Your task to perform on an android device: Search for "corsair k70" on newegg, select the first entry, add it to the cart, then select checkout. Image 0: 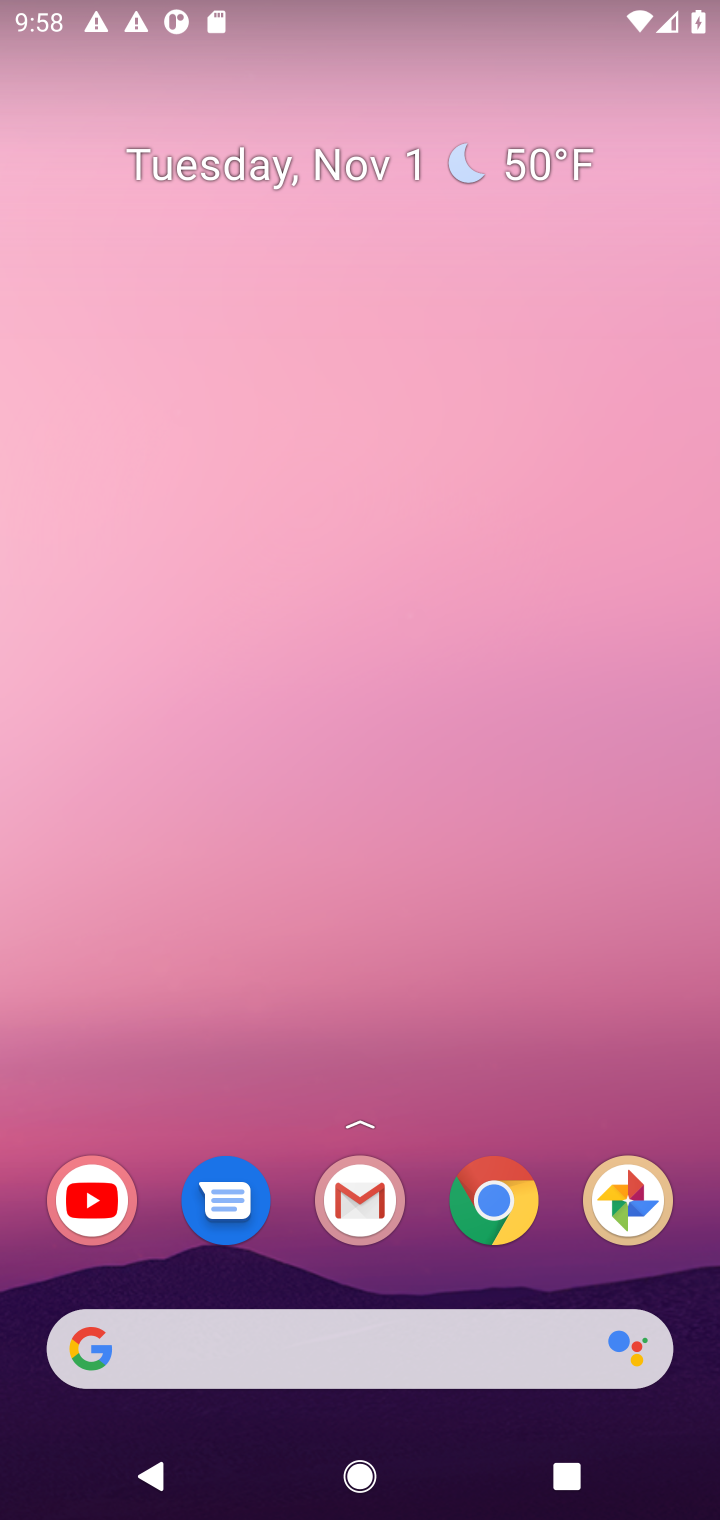
Step 0: click (271, 1322)
Your task to perform on an android device: Search for "corsair k70" on newegg, select the first entry, add it to the cart, then select checkout. Image 1: 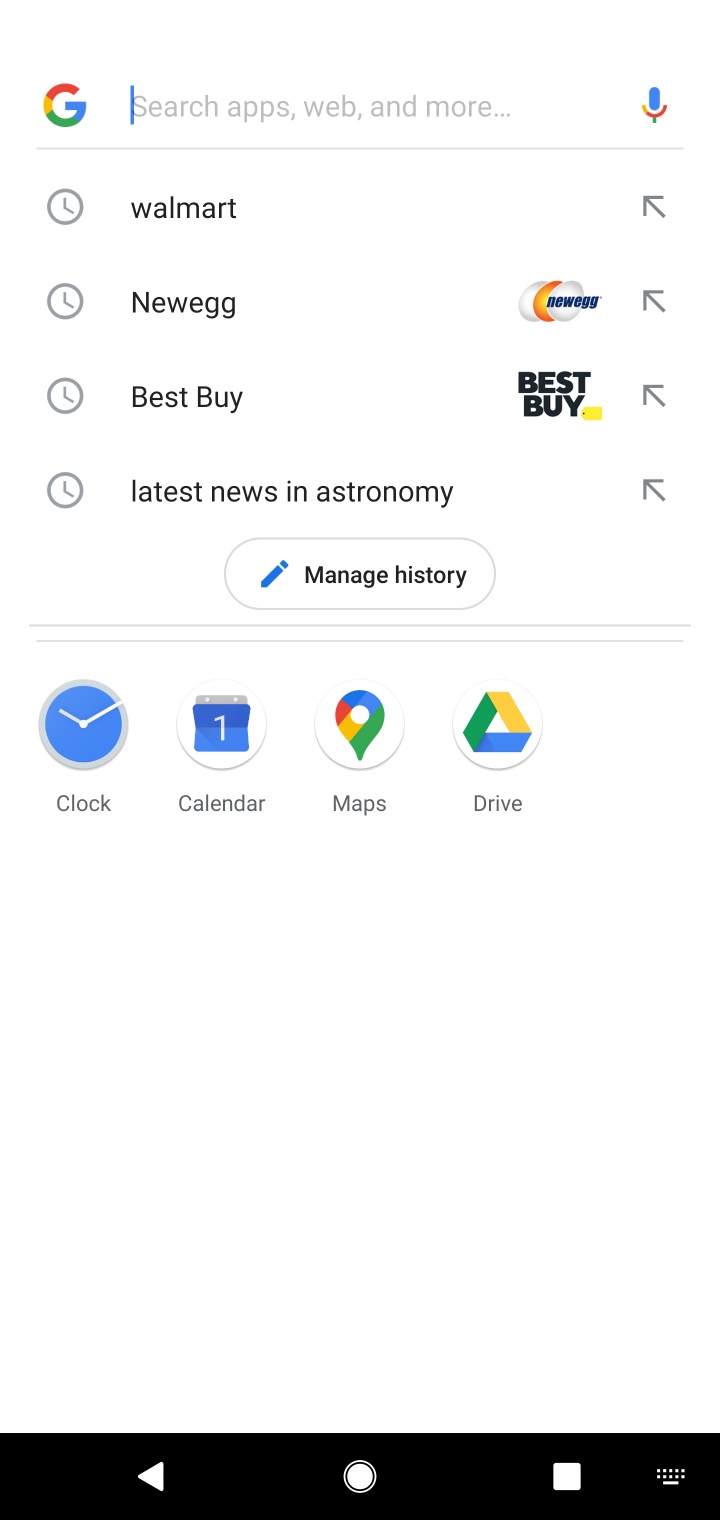
Step 1: type "newegg"
Your task to perform on an android device: Search for "corsair k70" on newegg, select the first entry, add it to the cart, then select checkout. Image 2: 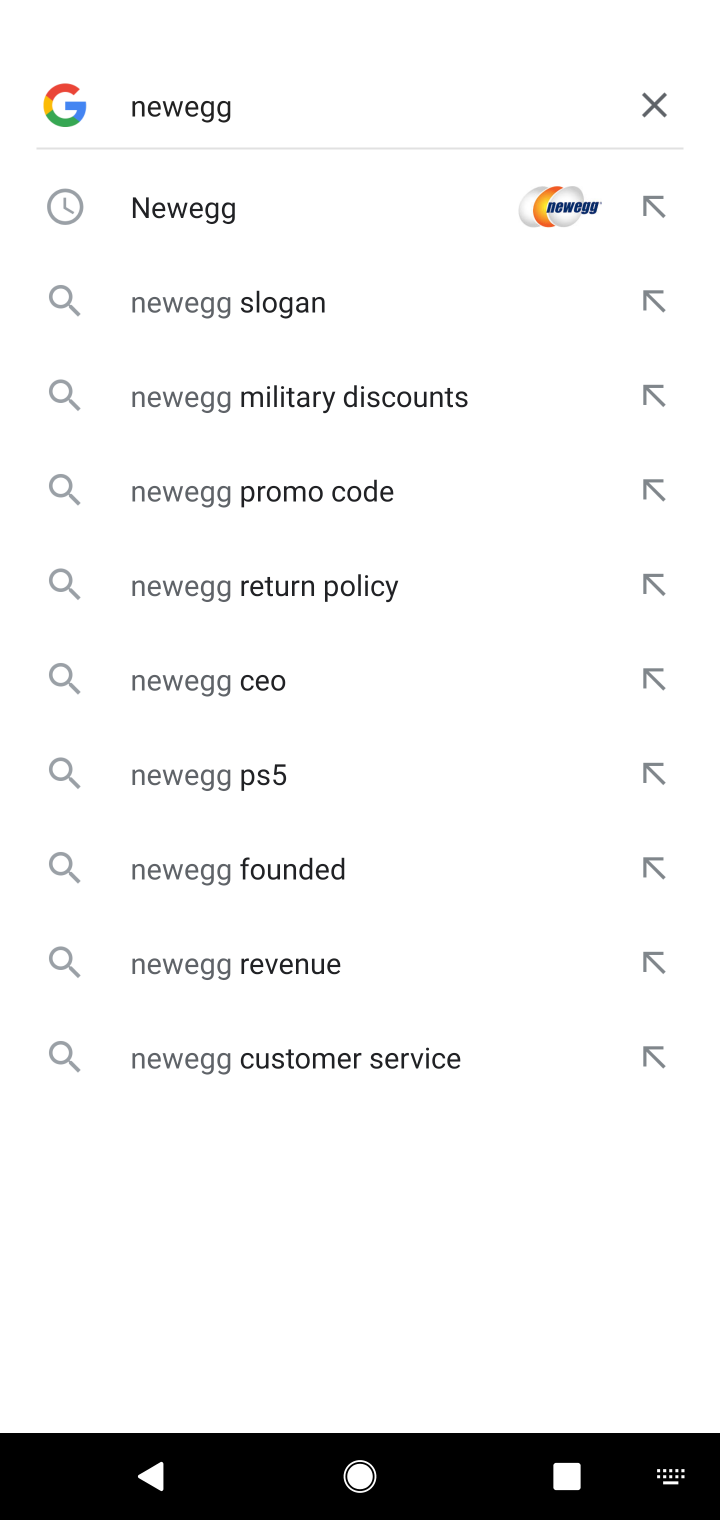
Step 2: click (209, 214)
Your task to perform on an android device: Search for "corsair k70" on newegg, select the first entry, add it to the cart, then select checkout. Image 3: 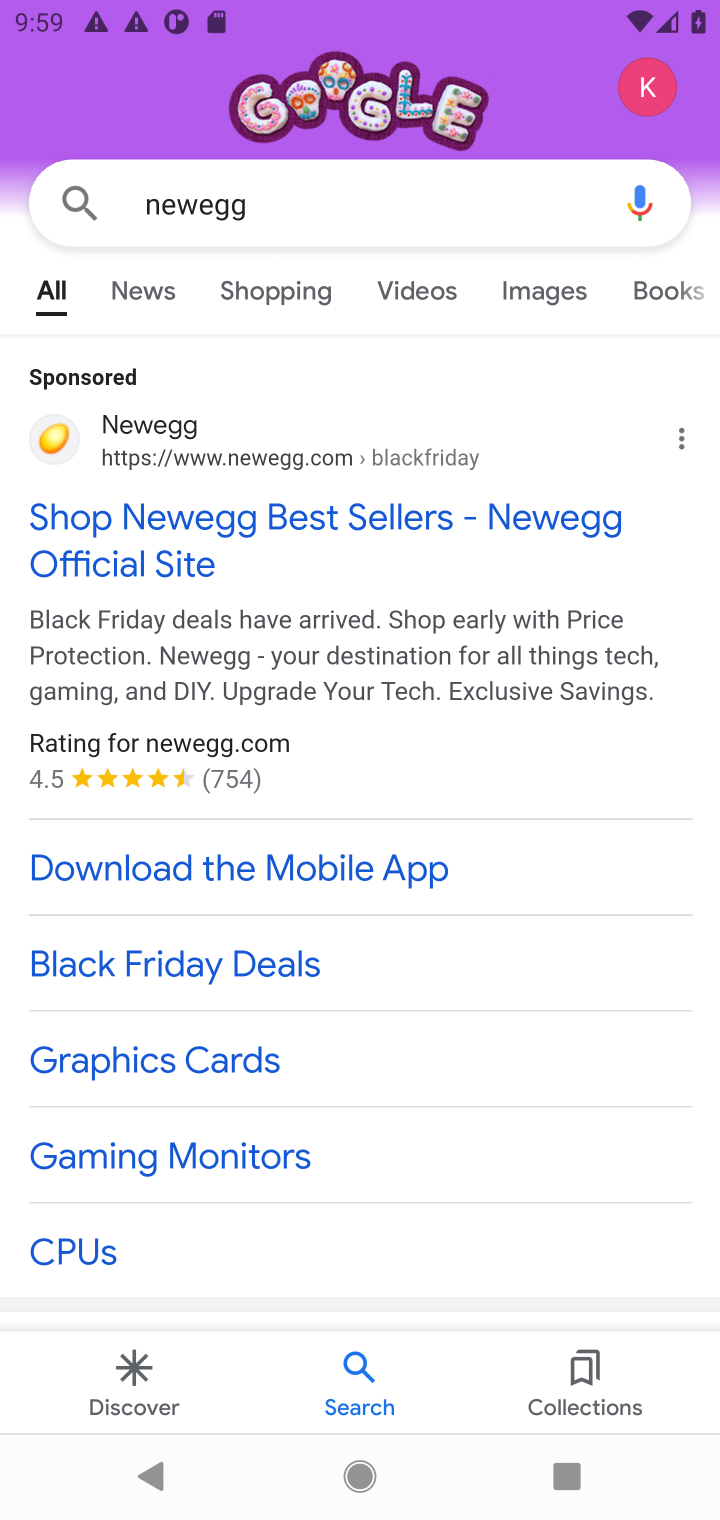
Step 3: click (191, 508)
Your task to perform on an android device: Search for "corsair k70" on newegg, select the first entry, add it to the cart, then select checkout. Image 4: 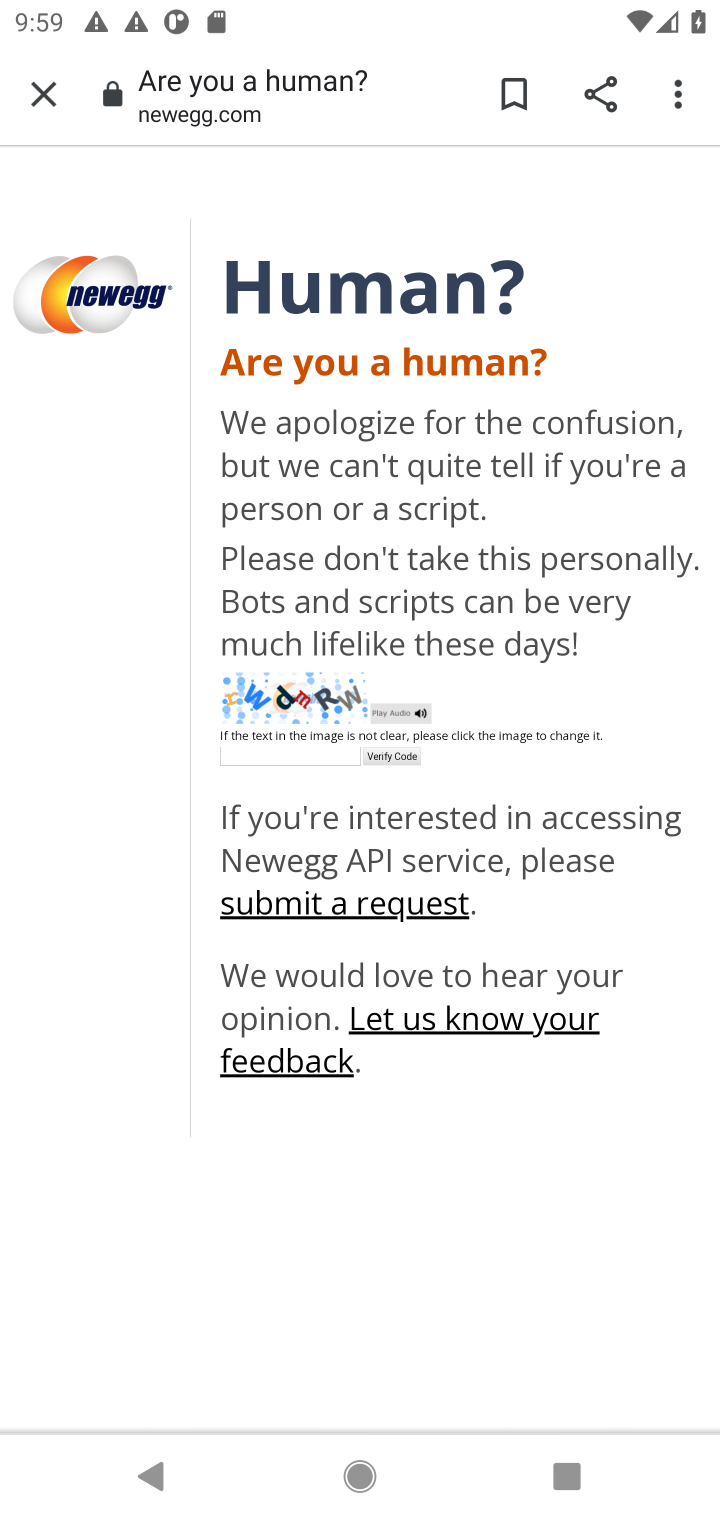
Step 4: task complete